Your task to perform on an android device: Go to Amazon Image 0: 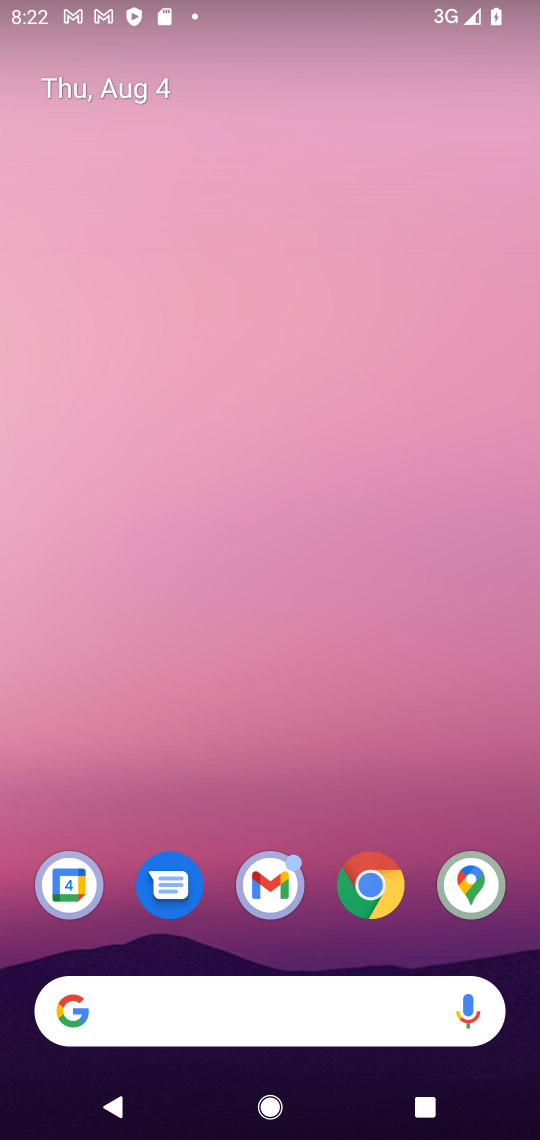
Step 0: press home button
Your task to perform on an android device: Go to Amazon Image 1: 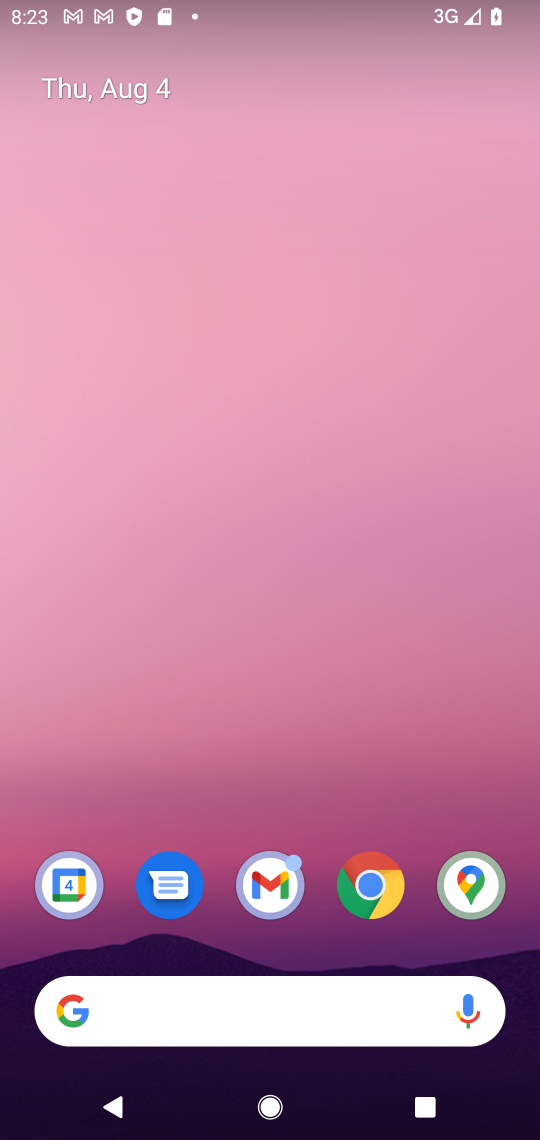
Step 1: click (389, 893)
Your task to perform on an android device: Go to Amazon Image 2: 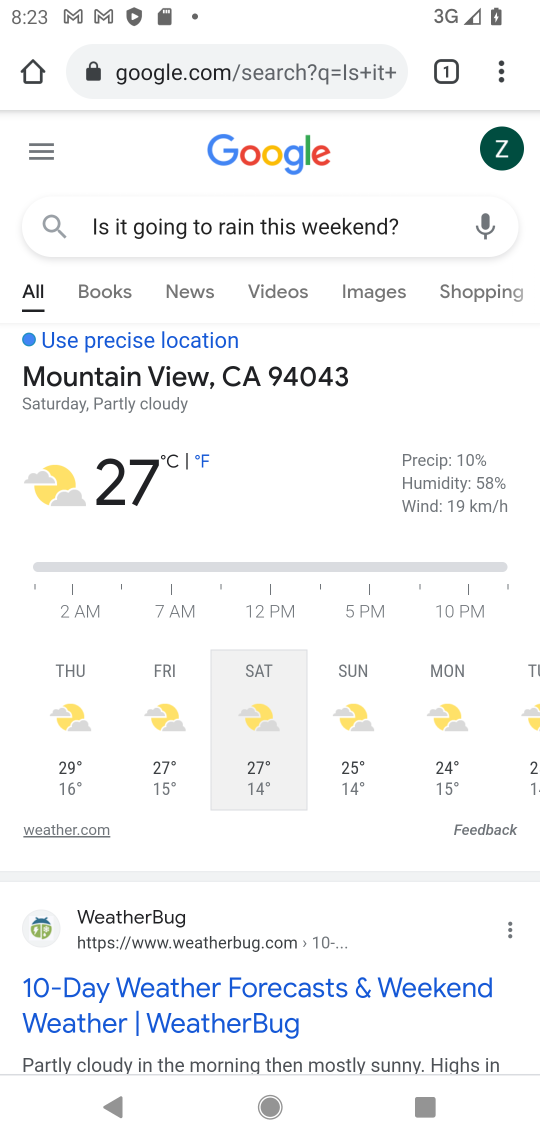
Step 2: click (269, 51)
Your task to perform on an android device: Go to Amazon Image 3: 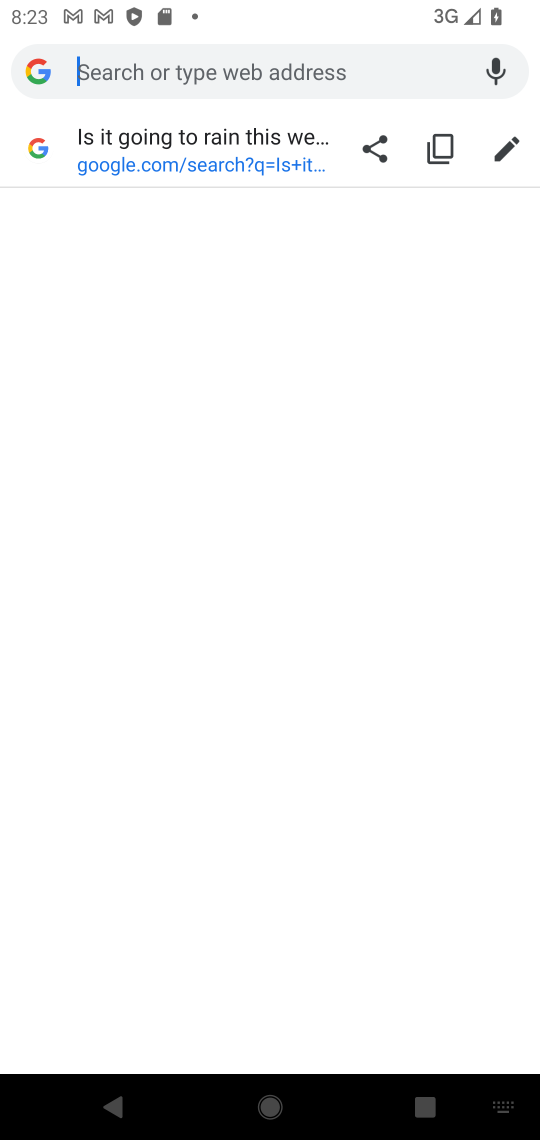
Step 3: type "Amazon"
Your task to perform on an android device: Go to Amazon Image 4: 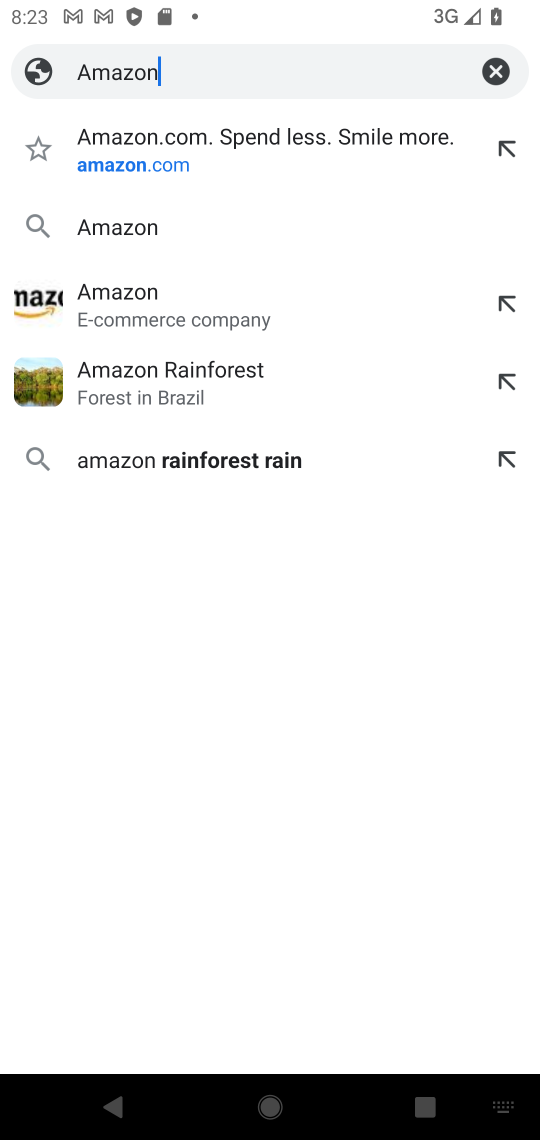
Step 4: click (63, 158)
Your task to perform on an android device: Go to Amazon Image 5: 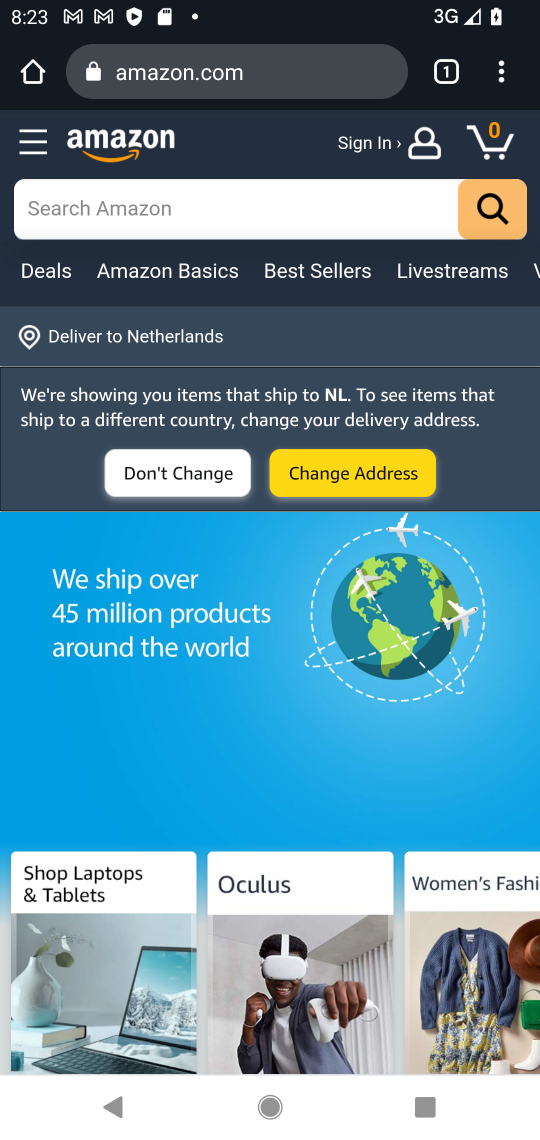
Step 5: task complete